Your task to perform on an android device: search for starred emails in the gmail app Image 0: 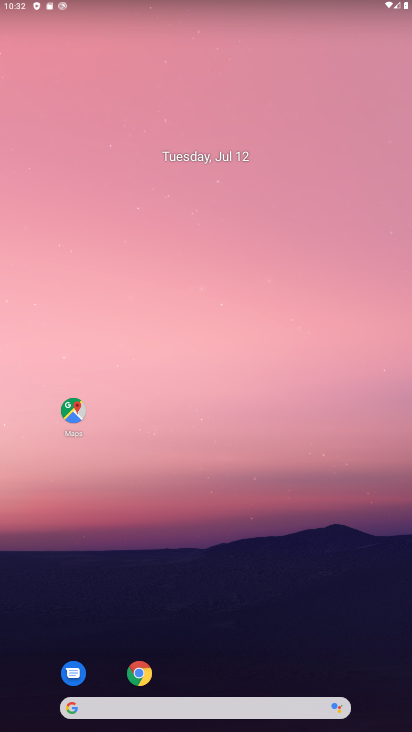
Step 0: drag from (187, 704) to (283, 195)
Your task to perform on an android device: search for starred emails in the gmail app Image 1: 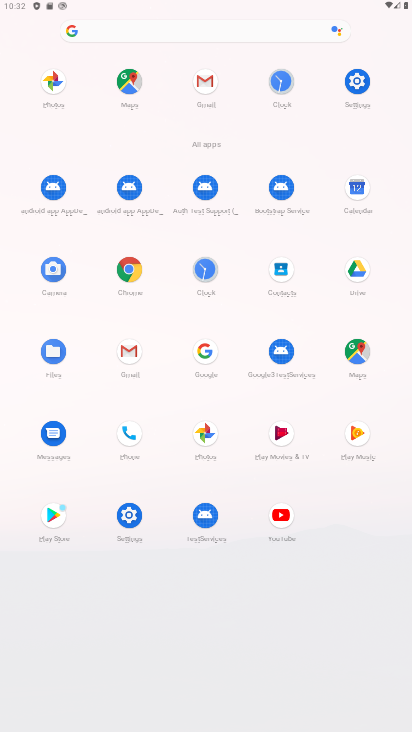
Step 1: click (131, 349)
Your task to perform on an android device: search for starred emails in the gmail app Image 2: 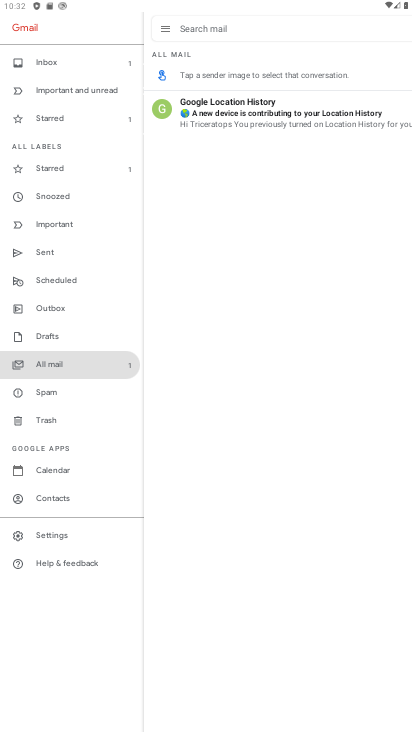
Step 2: click (72, 173)
Your task to perform on an android device: search for starred emails in the gmail app Image 3: 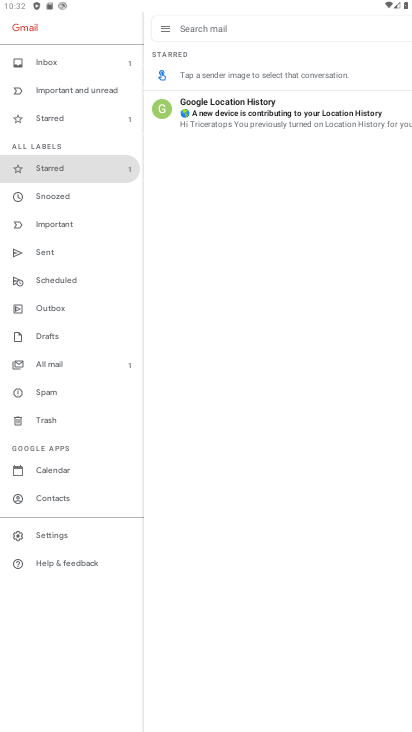
Step 3: task complete